Your task to perform on an android device: Go to internet settings Image 0: 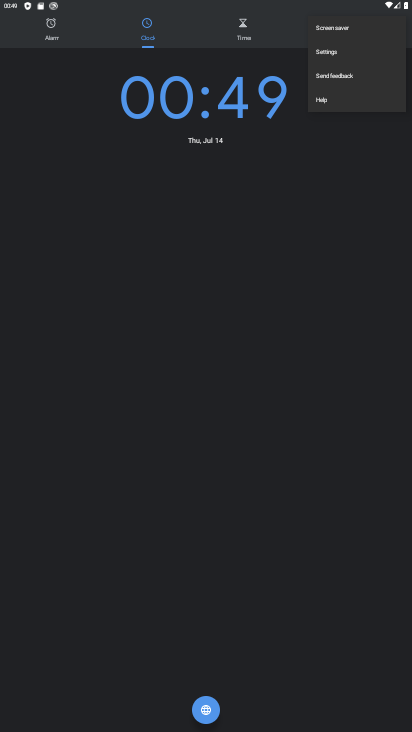
Step 0: press home button
Your task to perform on an android device: Go to internet settings Image 1: 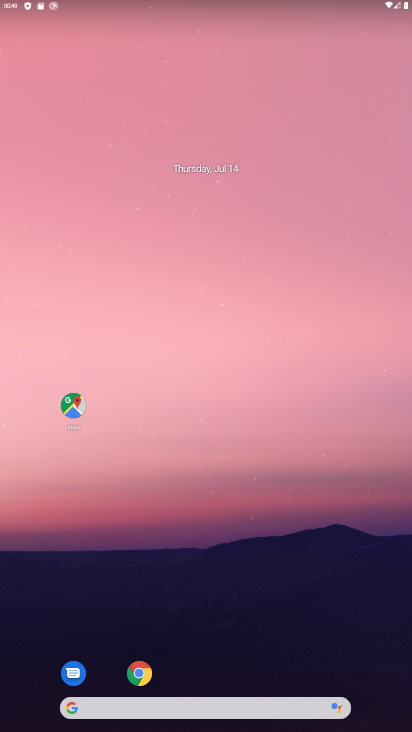
Step 1: drag from (235, 653) to (187, 357)
Your task to perform on an android device: Go to internet settings Image 2: 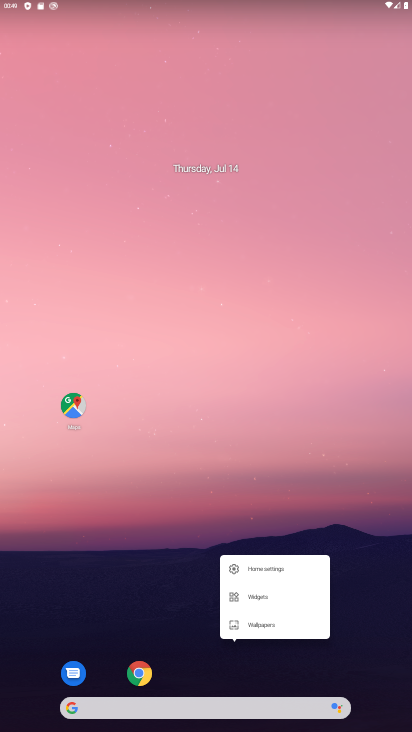
Step 2: click (100, 509)
Your task to perform on an android device: Go to internet settings Image 3: 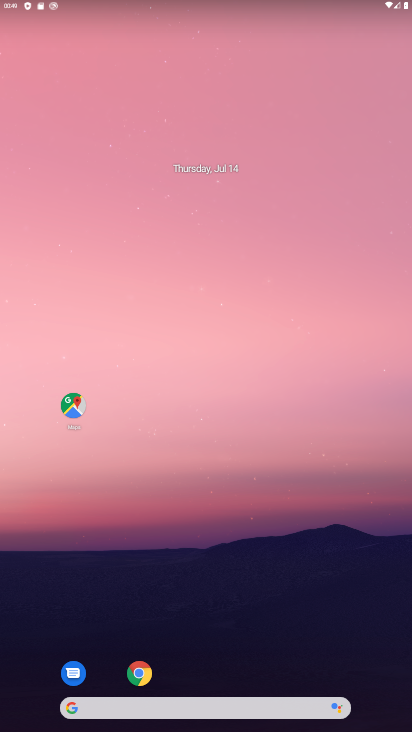
Step 3: drag from (242, 653) to (223, 293)
Your task to perform on an android device: Go to internet settings Image 4: 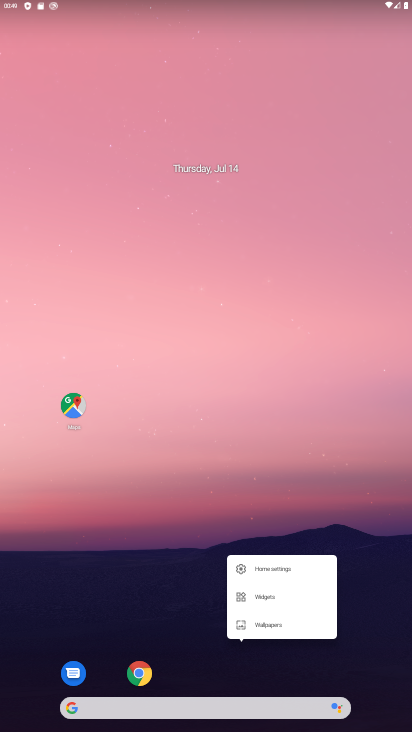
Step 4: click (223, 293)
Your task to perform on an android device: Go to internet settings Image 5: 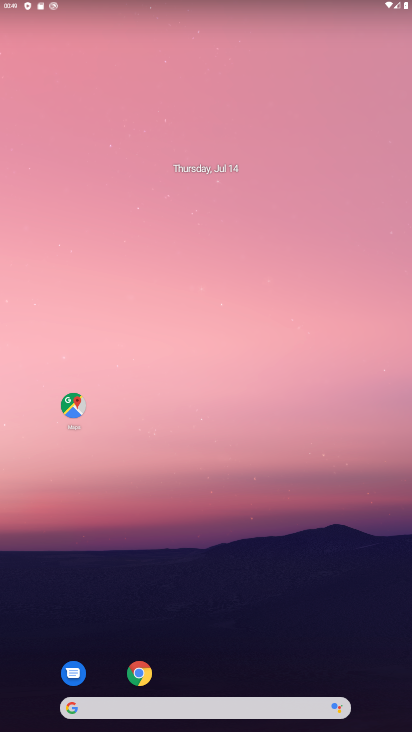
Step 5: drag from (230, 678) to (205, 334)
Your task to perform on an android device: Go to internet settings Image 6: 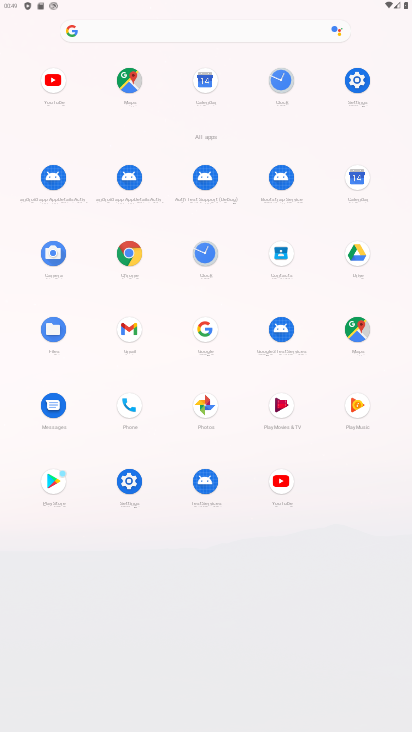
Step 6: click (365, 82)
Your task to perform on an android device: Go to internet settings Image 7: 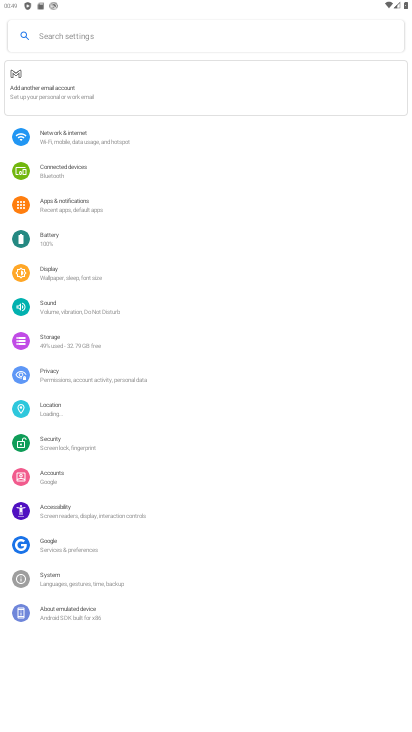
Step 7: click (153, 145)
Your task to perform on an android device: Go to internet settings Image 8: 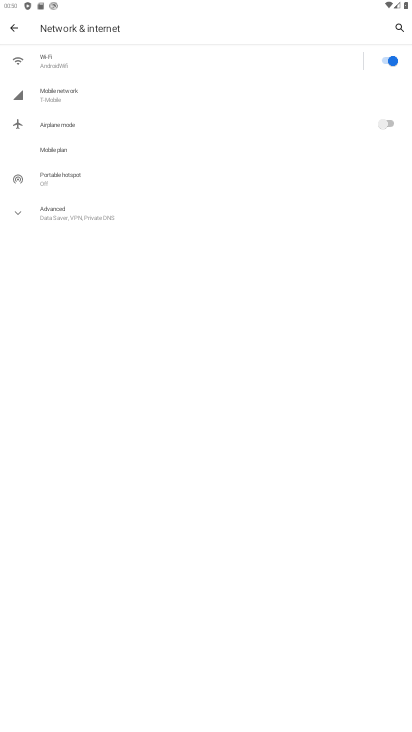
Step 8: task complete